Your task to perform on an android device: Show me popular games on the Play Store Image 0: 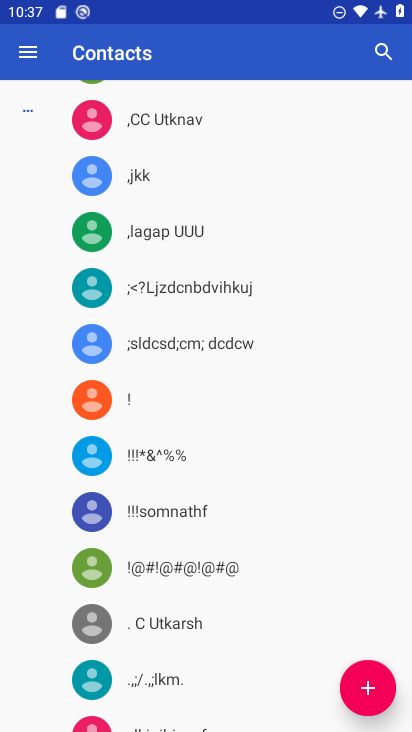
Step 0: press home button
Your task to perform on an android device: Show me popular games on the Play Store Image 1: 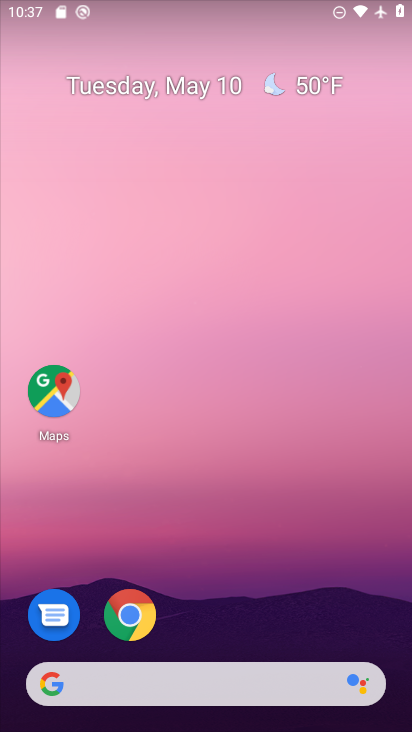
Step 1: drag from (391, 641) to (306, 197)
Your task to perform on an android device: Show me popular games on the Play Store Image 2: 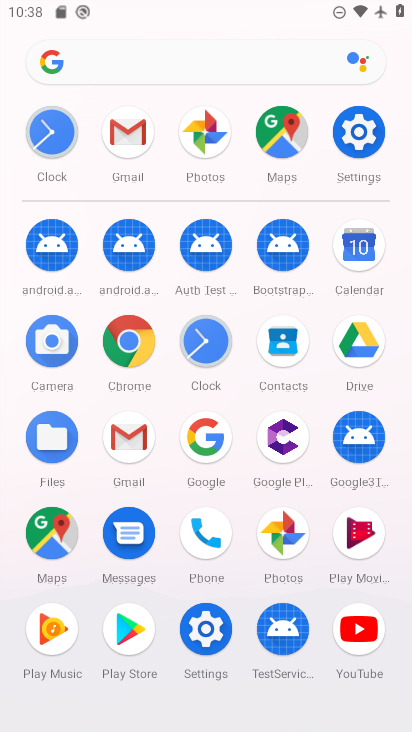
Step 2: click (131, 630)
Your task to perform on an android device: Show me popular games on the Play Store Image 3: 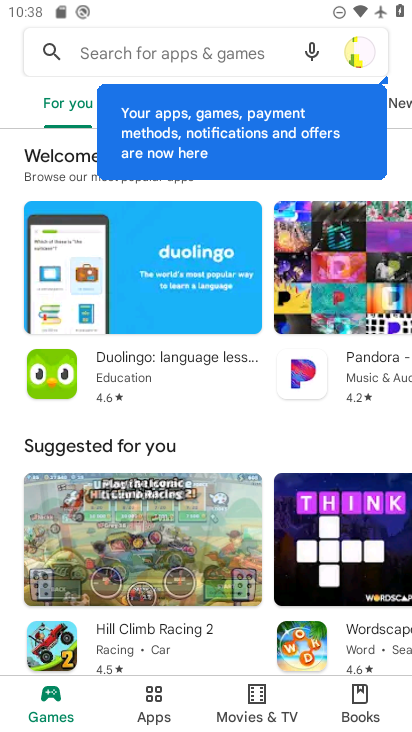
Step 3: drag from (172, 526) to (154, 229)
Your task to perform on an android device: Show me popular games on the Play Store Image 4: 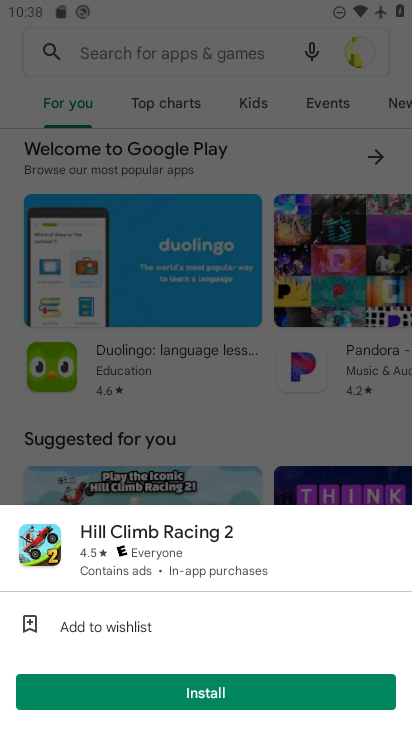
Step 4: drag from (260, 447) to (214, 261)
Your task to perform on an android device: Show me popular games on the Play Store Image 5: 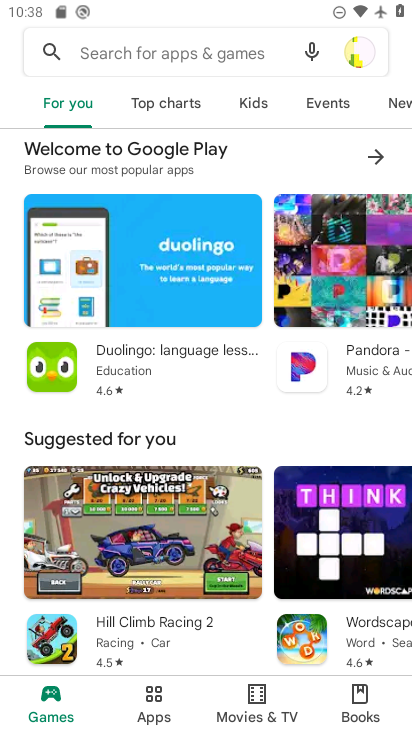
Step 5: drag from (247, 441) to (217, 34)
Your task to perform on an android device: Show me popular games on the Play Store Image 6: 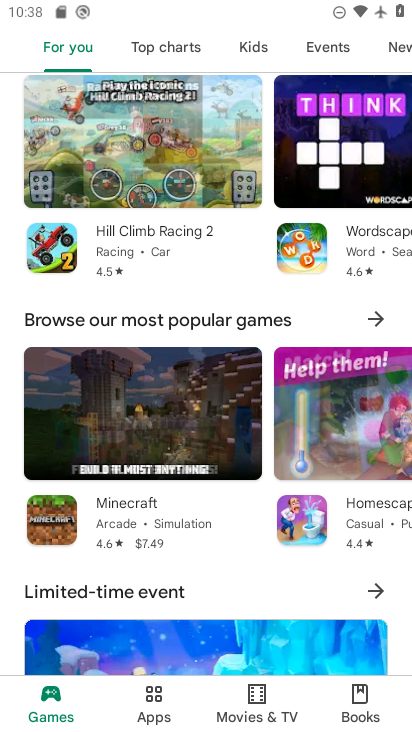
Step 6: click (371, 321)
Your task to perform on an android device: Show me popular games on the Play Store Image 7: 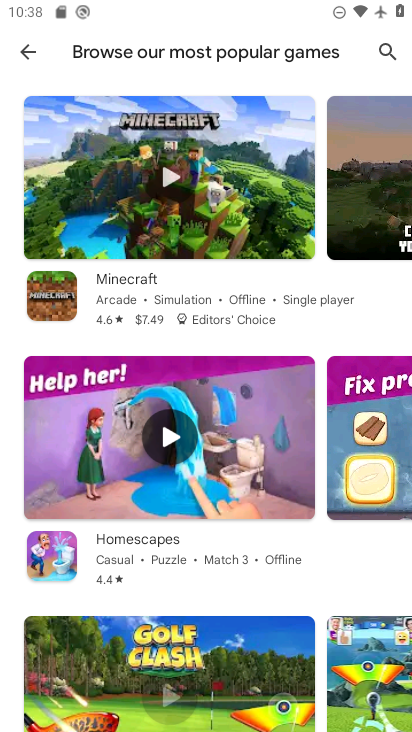
Step 7: task complete